Your task to perform on an android device: empty trash in google photos Image 0: 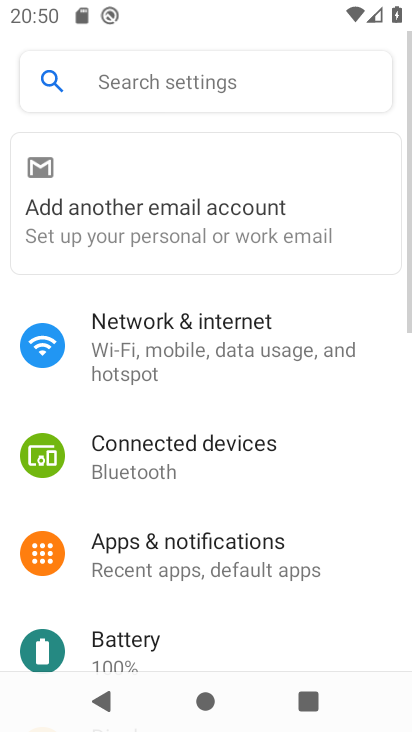
Step 0: press home button
Your task to perform on an android device: empty trash in google photos Image 1: 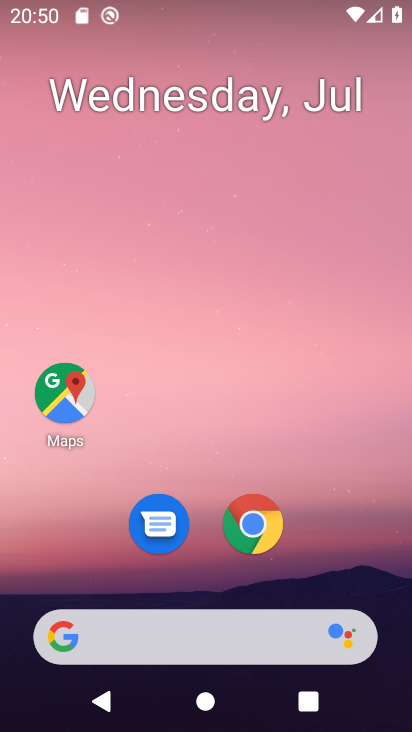
Step 1: drag from (184, 623) to (306, 175)
Your task to perform on an android device: empty trash in google photos Image 2: 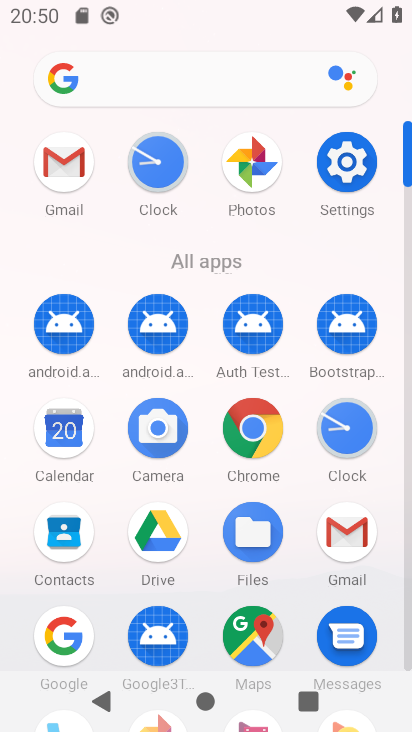
Step 2: drag from (212, 622) to (376, 175)
Your task to perform on an android device: empty trash in google photos Image 3: 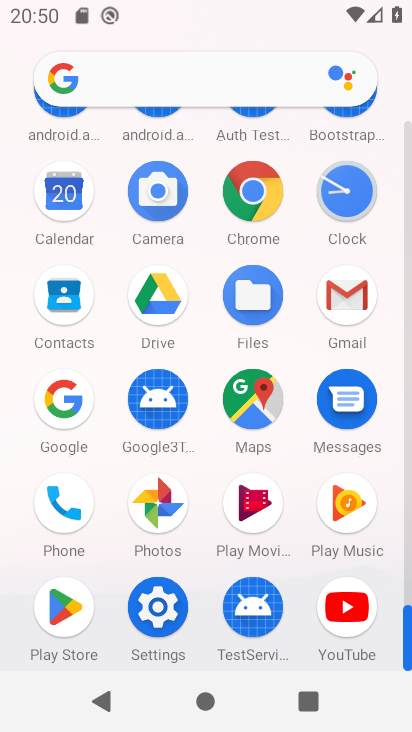
Step 3: click (156, 498)
Your task to perform on an android device: empty trash in google photos Image 4: 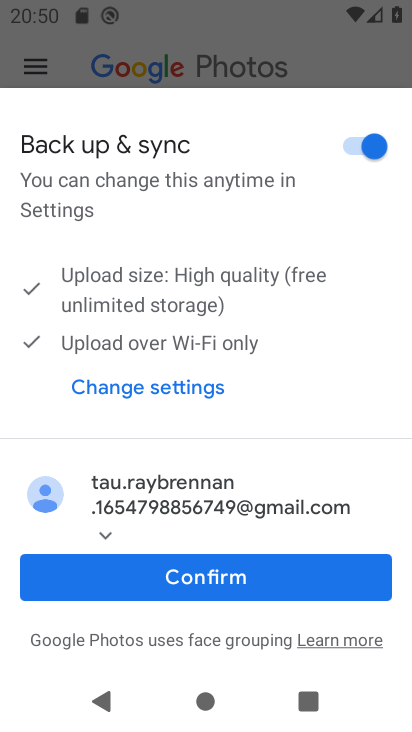
Step 4: click (194, 579)
Your task to perform on an android device: empty trash in google photos Image 5: 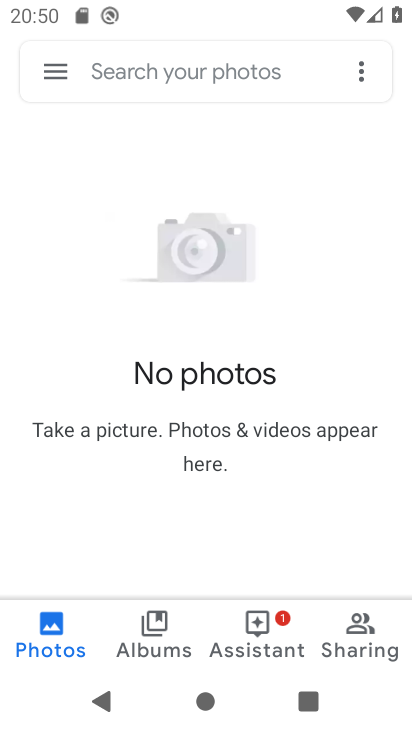
Step 5: click (57, 71)
Your task to perform on an android device: empty trash in google photos Image 6: 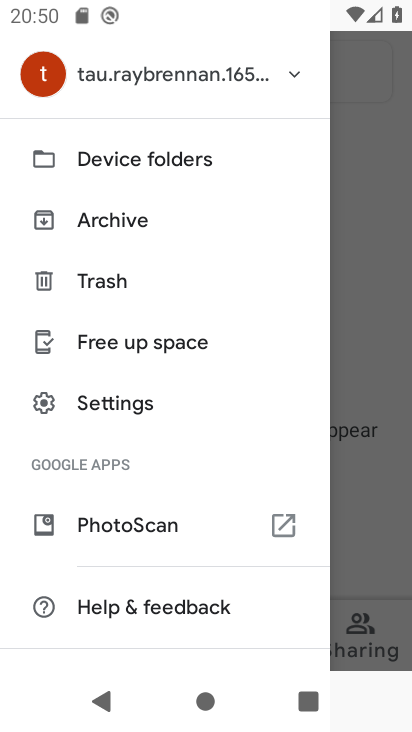
Step 6: click (94, 275)
Your task to perform on an android device: empty trash in google photos Image 7: 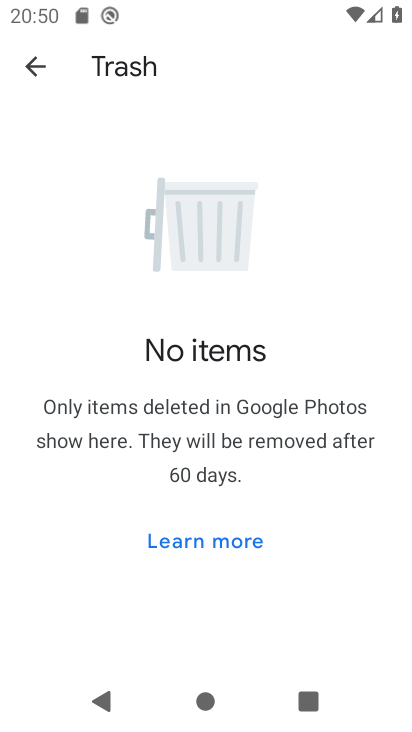
Step 7: task complete